Your task to perform on an android device: Go to Maps Image 0: 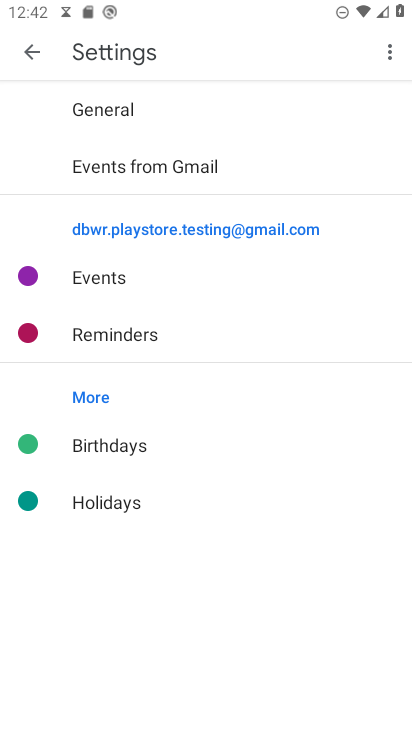
Step 0: press home button
Your task to perform on an android device: Go to Maps Image 1: 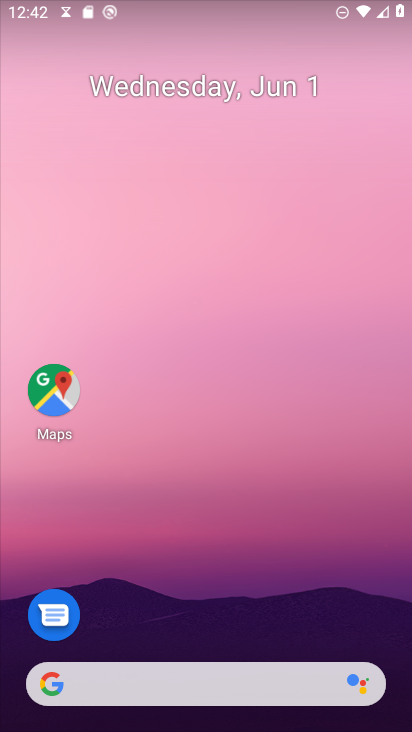
Step 1: drag from (266, 555) to (238, 82)
Your task to perform on an android device: Go to Maps Image 2: 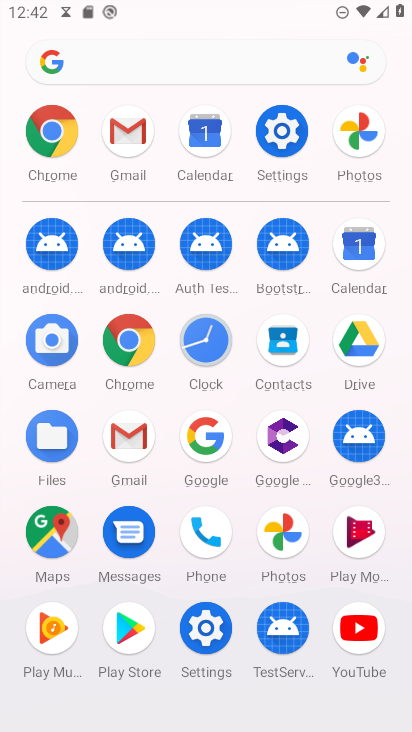
Step 2: click (53, 541)
Your task to perform on an android device: Go to Maps Image 3: 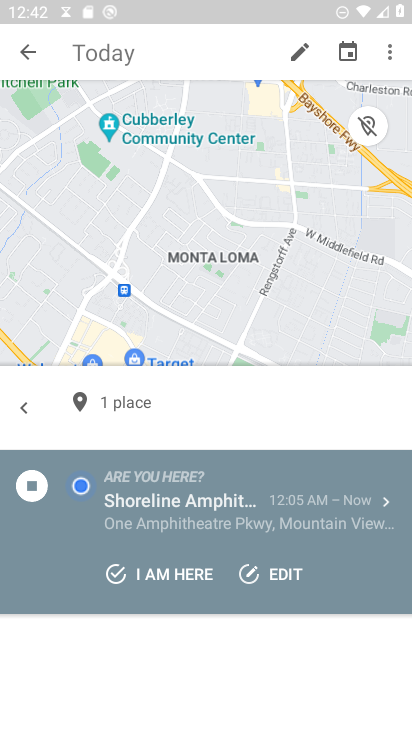
Step 3: click (29, 54)
Your task to perform on an android device: Go to Maps Image 4: 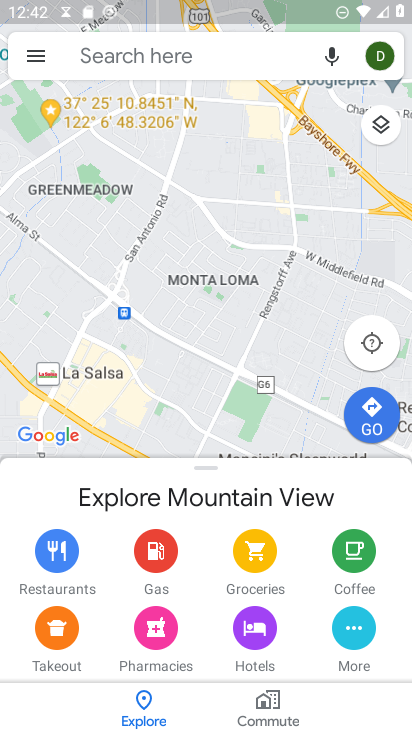
Step 4: task complete